Your task to perform on an android device: Is it going to rain today? Image 0: 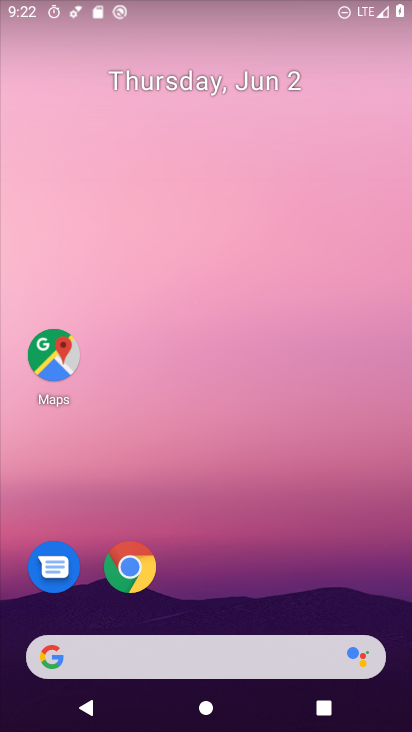
Step 0: drag from (264, 531) to (285, 146)
Your task to perform on an android device: Is it going to rain today? Image 1: 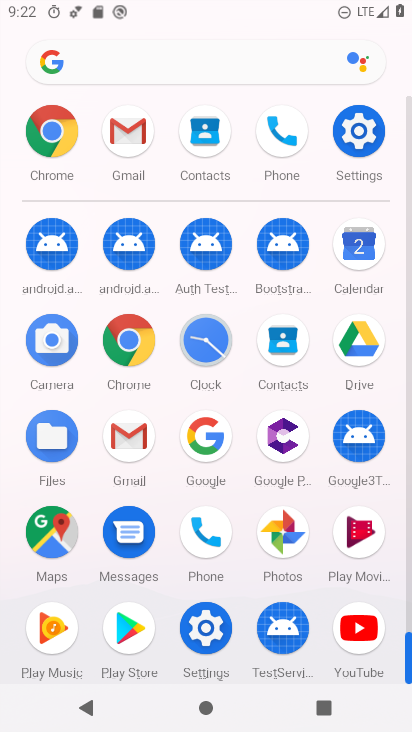
Step 1: click (121, 346)
Your task to perform on an android device: Is it going to rain today? Image 2: 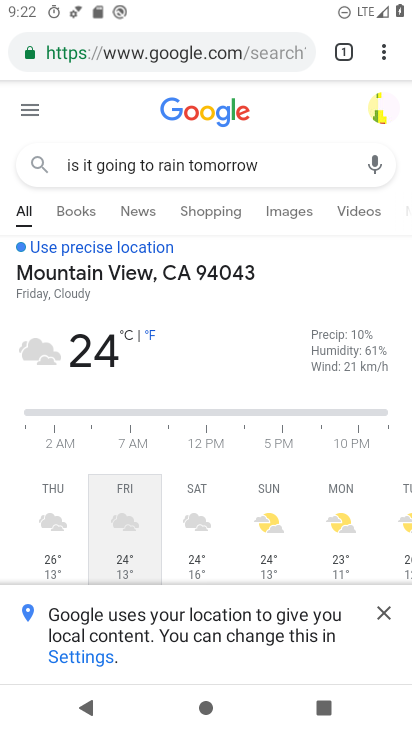
Step 2: click (237, 69)
Your task to perform on an android device: Is it going to rain today? Image 3: 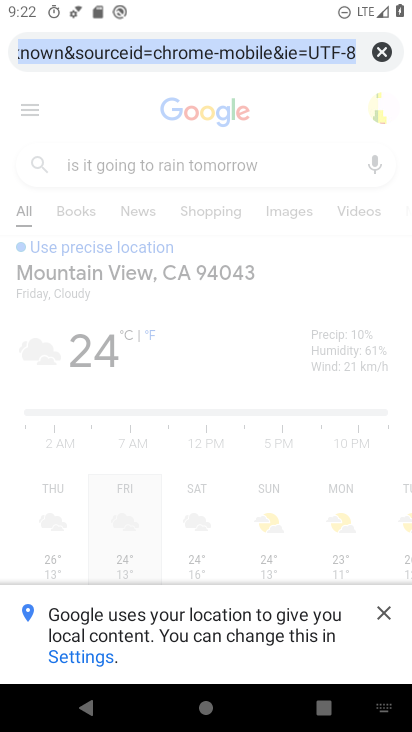
Step 3: click (370, 43)
Your task to perform on an android device: Is it going to rain today? Image 4: 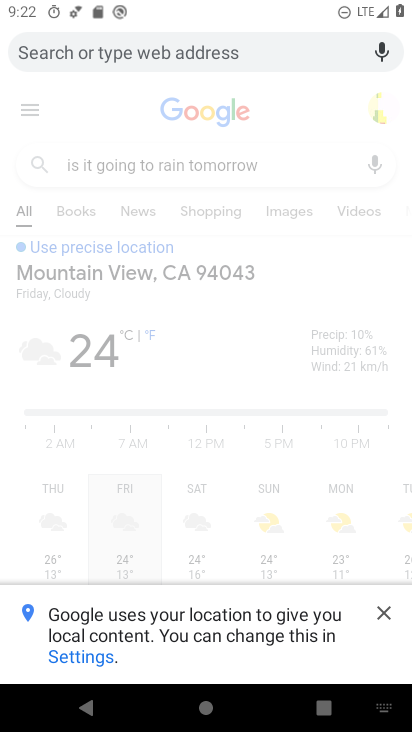
Step 4: type "is it going to rain today"
Your task to perform on an android device: Is it going to rain today? Image 5: 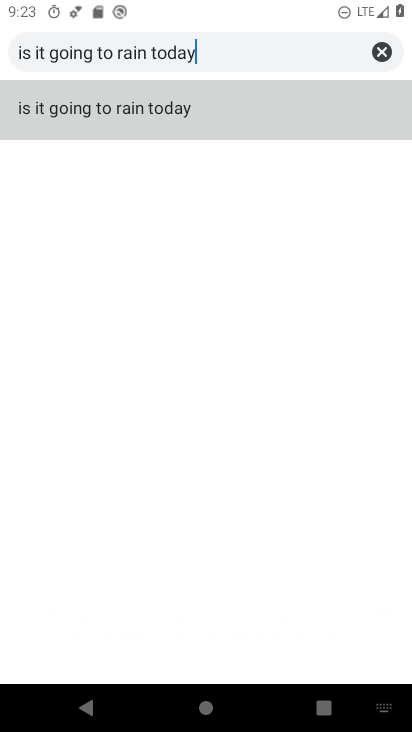
Step 5: click (186, 100)
Your task to perform on an android device: Is it going to rain today? Image 6: 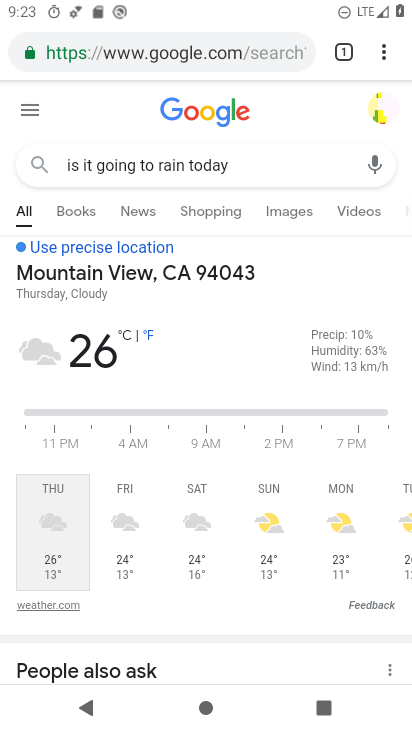
Step 6: task complete